Your task to perform on an android device: What's the weather? Image 0: 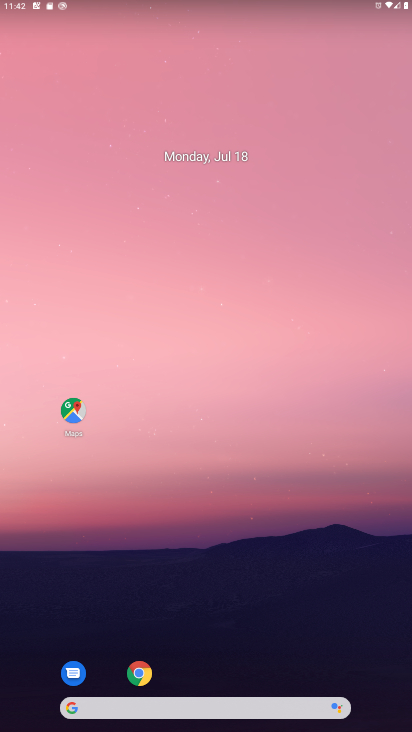
Step 0: drag from (202, 662) to (208, 127)
Your task to perform on an android device: What's the weather? Image 1: 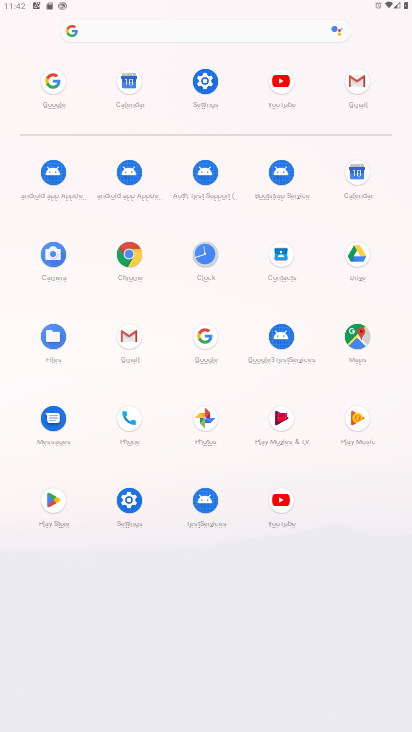
Step 1: click (185, 334)
Your task to perform on an android device: What's the weather? Image 2: 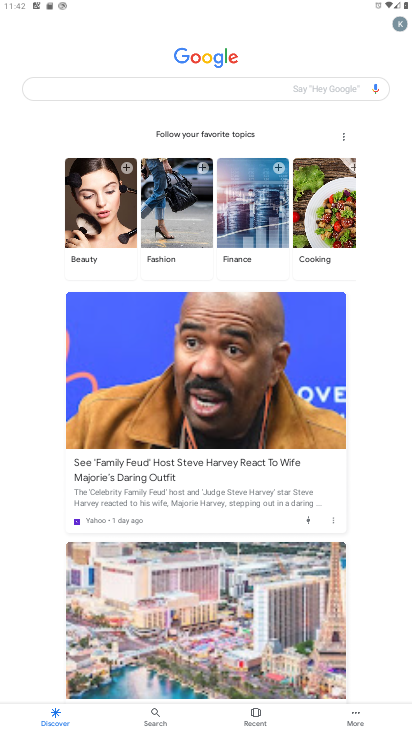
Step 2: click (107, 81)
Your task to perform on an android device: What's the weather? Image 3: 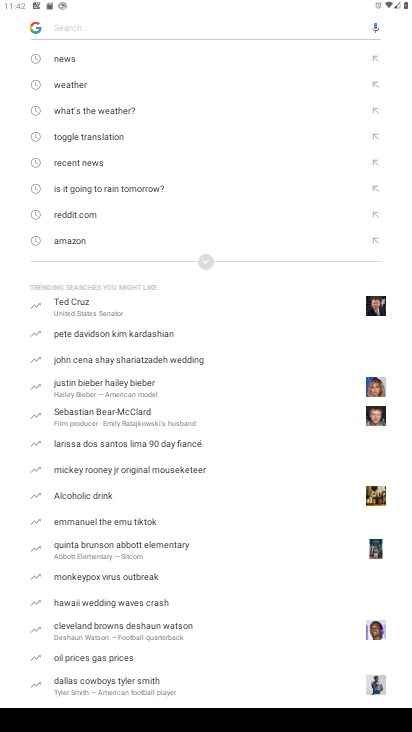
Step 3: click (101, 81)
Your task to perform on an android device: What's the weather? Image 4: 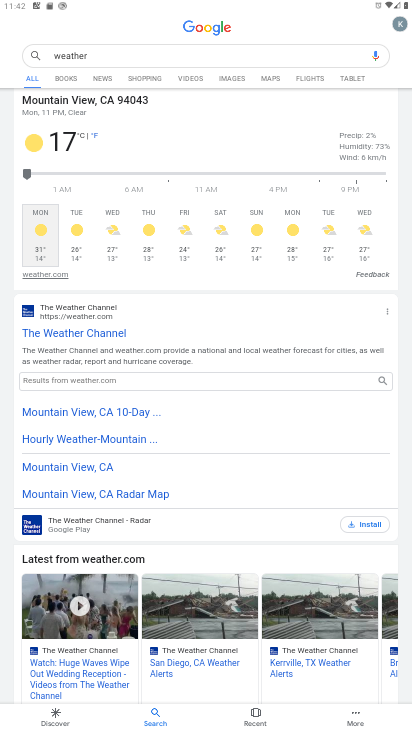
Step 4: task complete